Your task to perform on an android device: manage bookmarks in the chrome app Image 0: 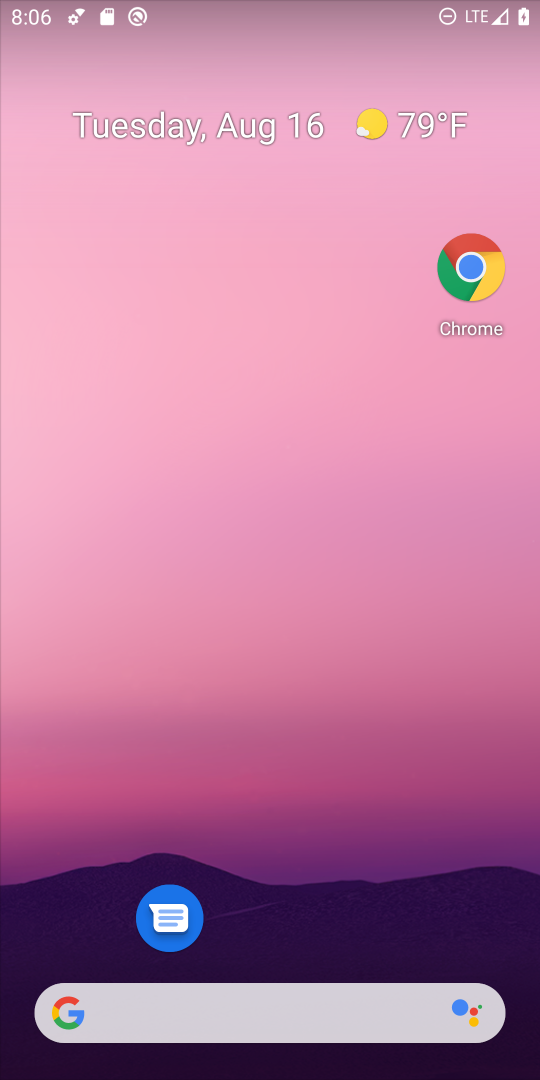
Step 0: drag from (186, 1000) to (213, 154)
Your task to perform on an android device: manage bookmarks in the chrome app Image 1: 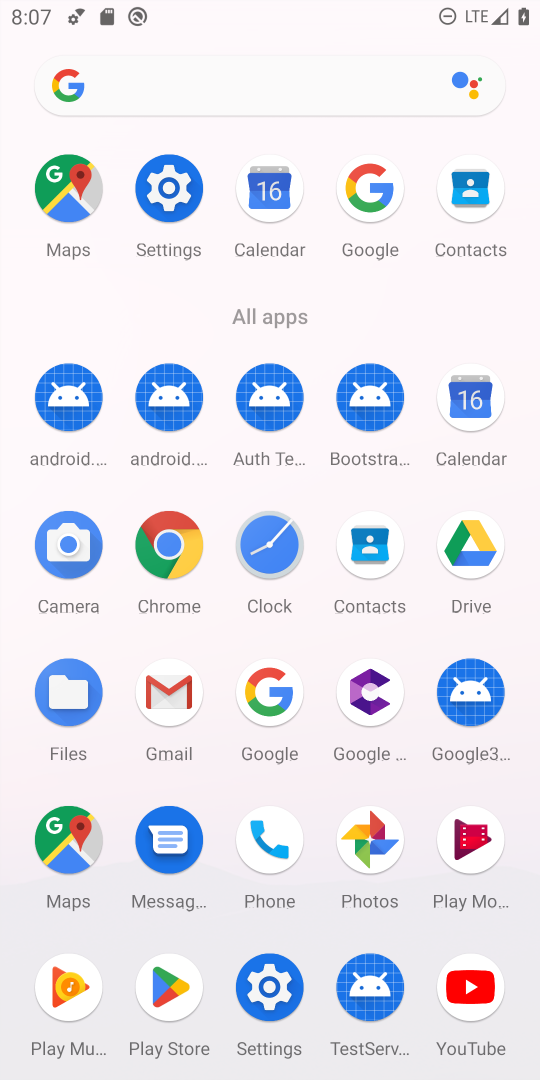
Step 1: click (174, 576)
Your task to perform on an android device: manage bookmarks in the chrome app Image 2: 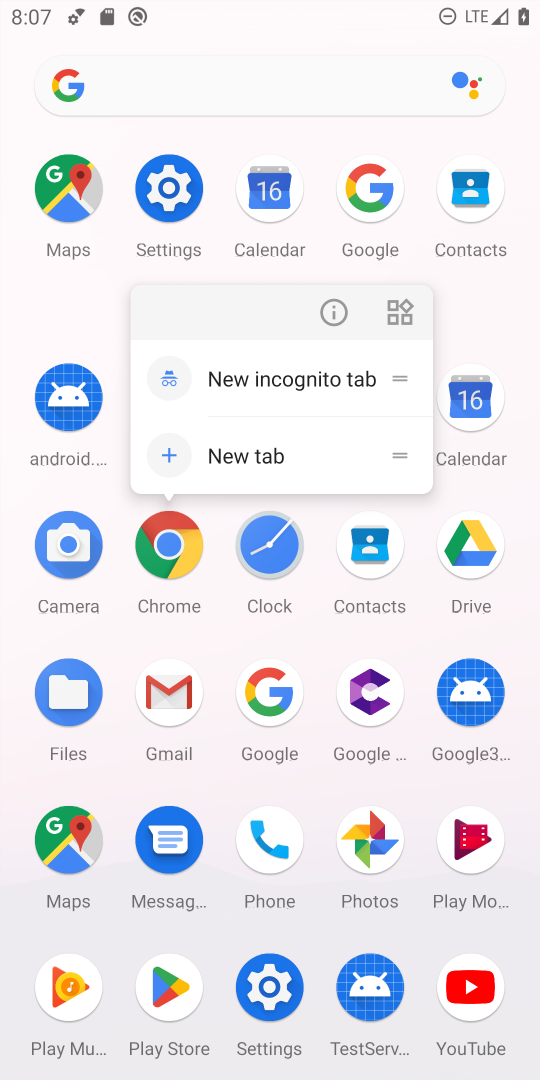
Step 2: click (167, 567)
Your task to perform on an android device: manage bookmarks in the chrome app Image 3: 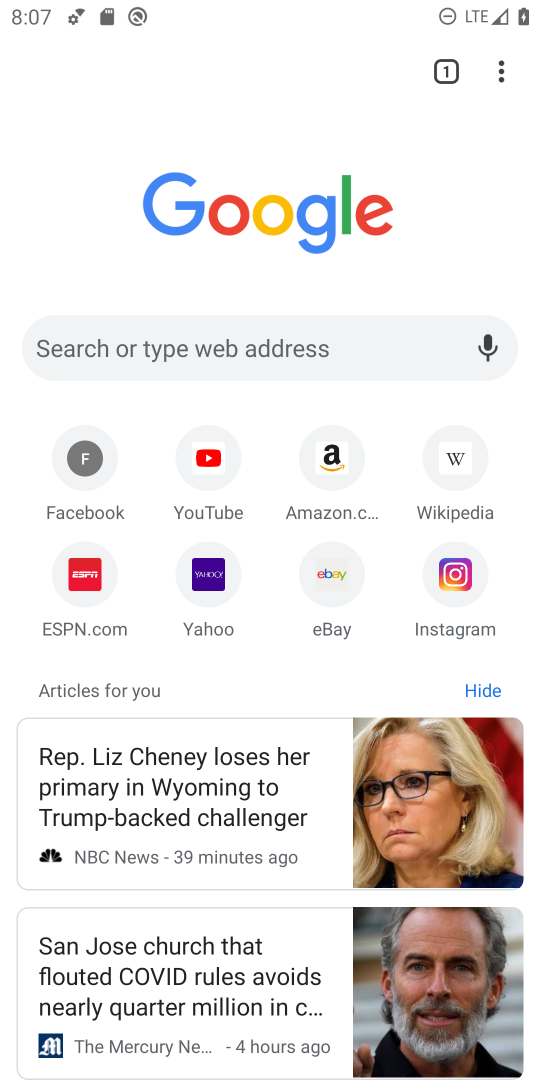
Step 3: click (505, 86)
Your task to perform on an android device: manage bookmarks in the chrome app Image 4: 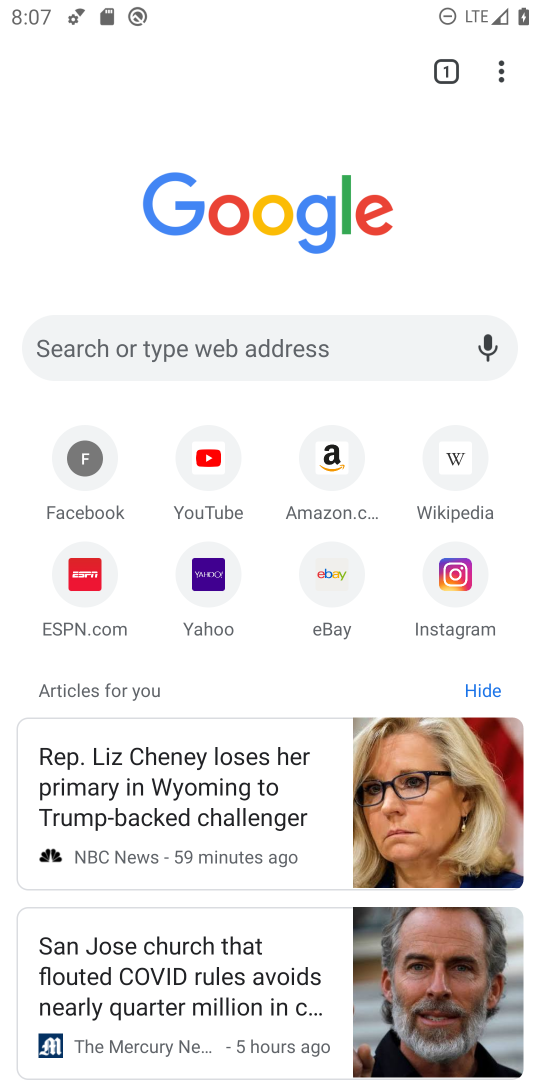
Step 4: click (505, 86)
Your task to perform on an android device: manage bookmarks in the chrome app Image 5: 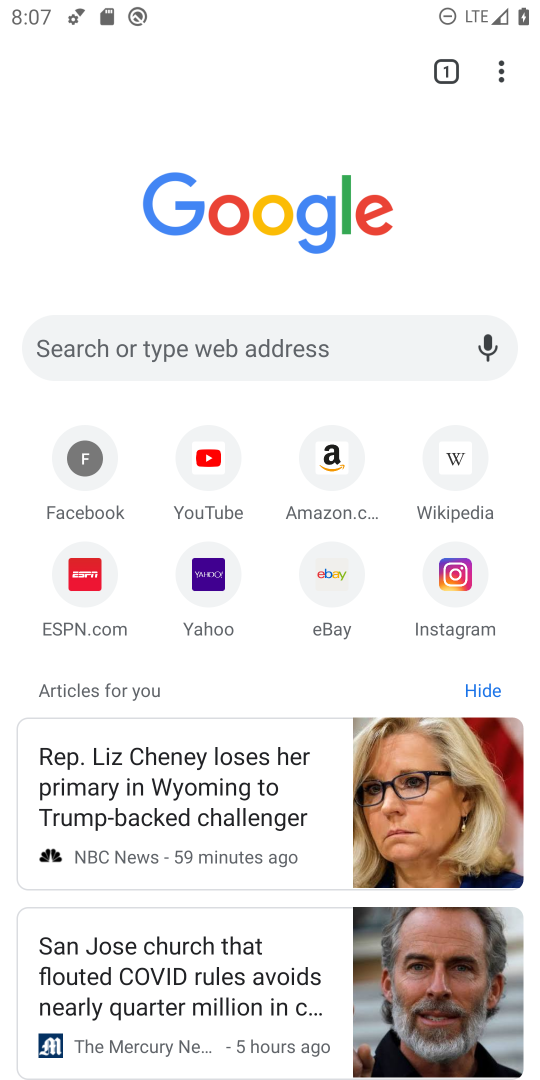
Step 5: click (508, 78)
Your task to perform on an android device: manage bookmarks in the chrome app Image 6: 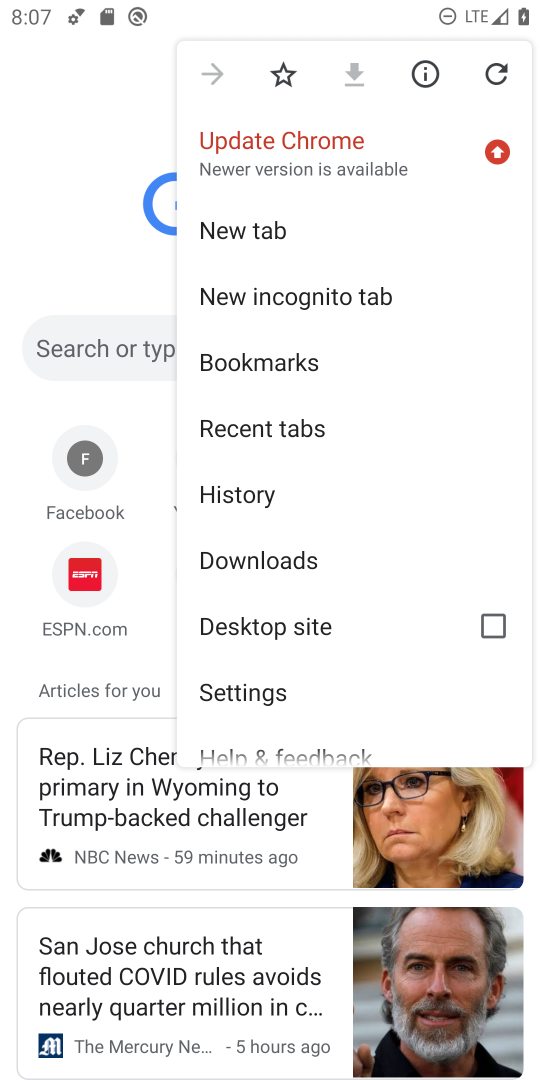
Step 6: click (261, 367)
Your task to perform on an android device: manage bookmarks in the chrome app Image 7: 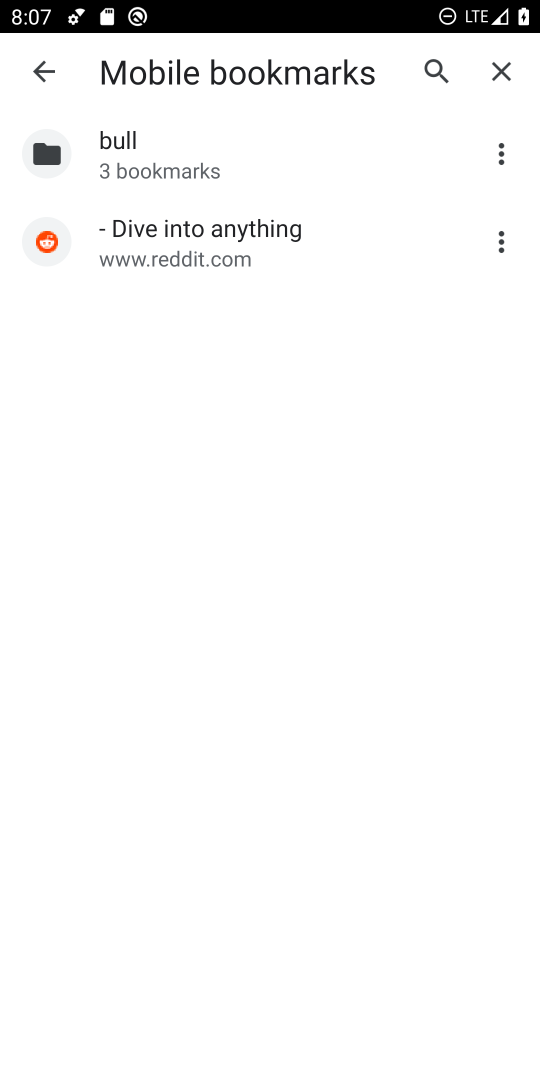
Step 7: task complete